Your task to perform on an android device: turn on the 24-hour format for clock Image 0: 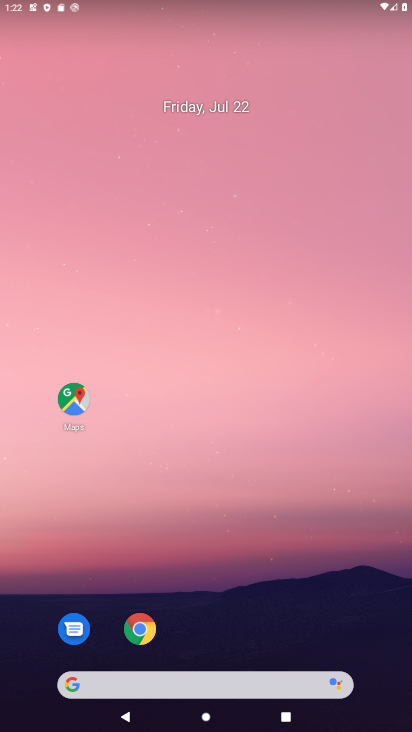
Step 0: drag from (37, 621) to (260, 134)
Your task to perform on an android device: turn on the 24-hour format for clock Image 1: 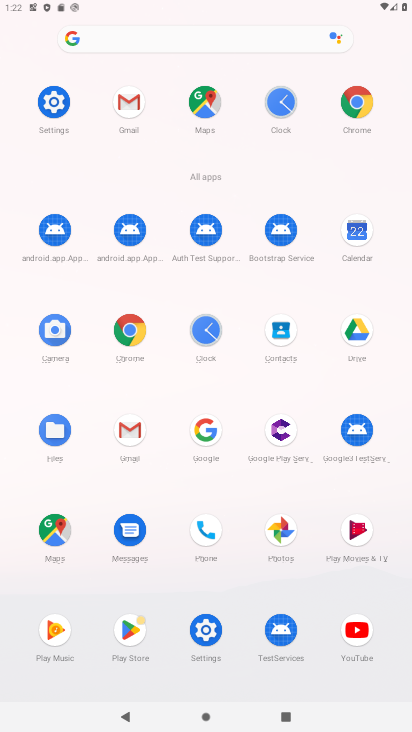
Step 1: click (206, 328)
Your task to perform on an android device: turn on the 24-hour format for clock Image 2: 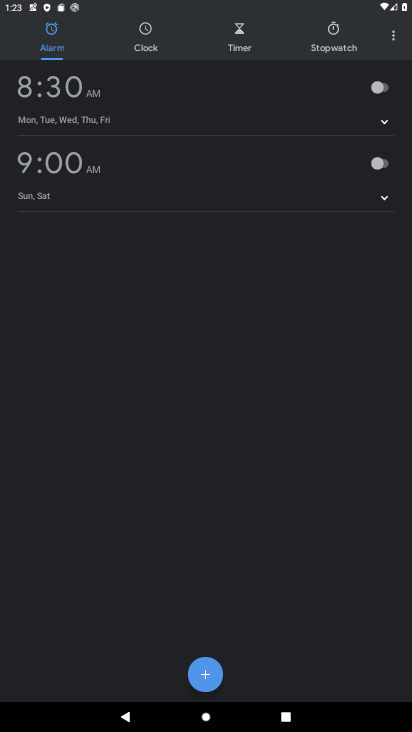
Step 2: click (392, 37)
Your task to perform on an android device: turn on the 24-hour format for clock Image 3: 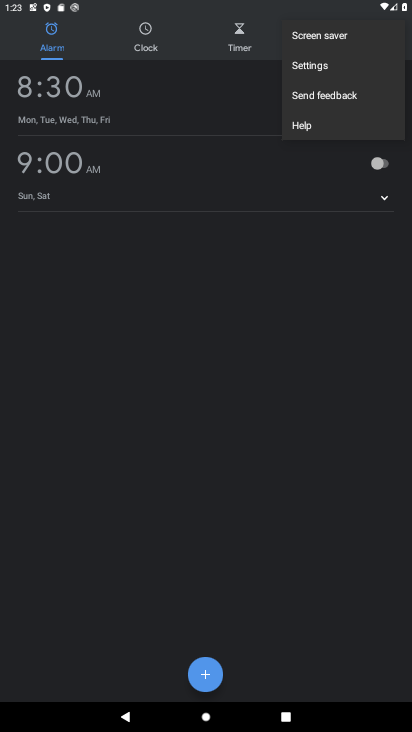
Step 3: click (332, 67)
Your task to perform on an android device: turn on the 24-hour format for clock Image 4: 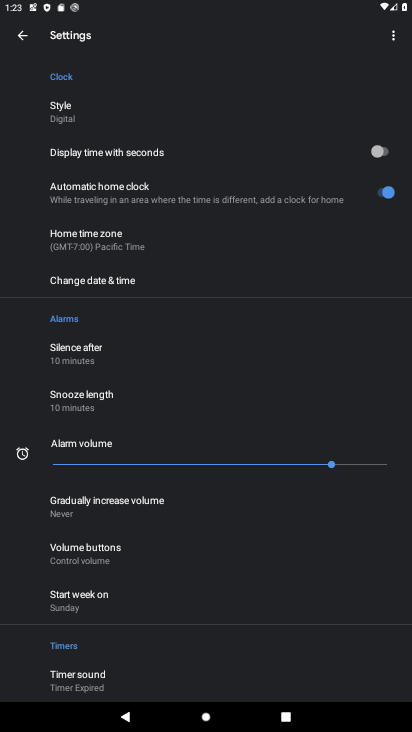
Step 4: click (101, 275)
Your task to perform on an android device: turn on the 24-hour format for clock Image 5: 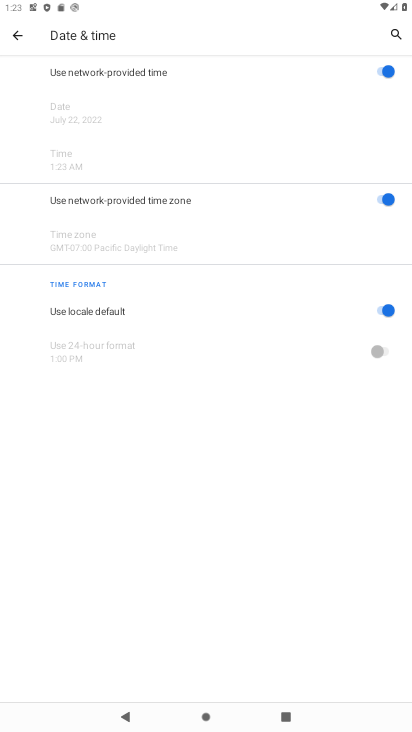
Step 5: click (390, 309)
Your task to perform on an android device: turn on the 24-hour format for clock Image 6: 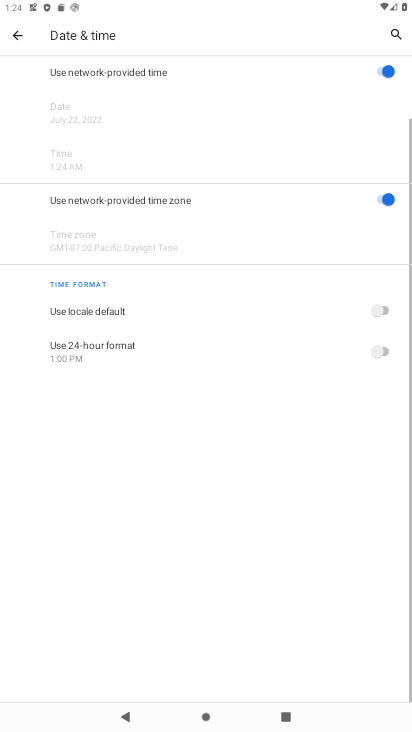
Step 6: click (377, 347)
Your task to perform on an android device: turn on the 24-hour format for clock Image 7: 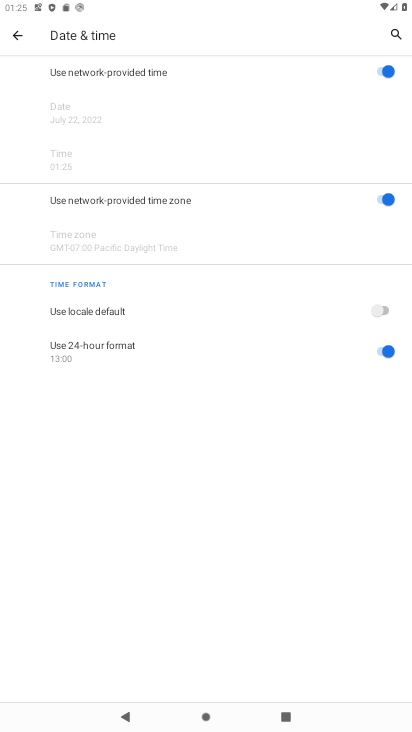
Step 7: task complete